Your task to perform on an android device: open app "Etsy: Buy & Sell Unique Items" (install if not already installed) and go to login screen Image 0: 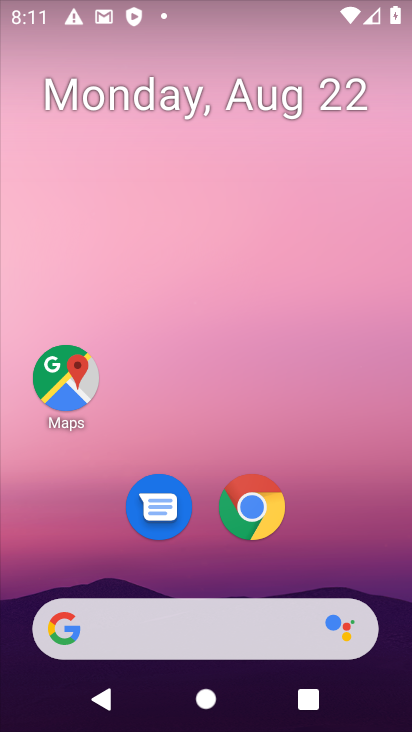
Step 0: drag from (215, 538) to (279, 121)
Your task to perform on an android device: open app "Etsy: Buy & Sell Unique Items" (install if not already installed) and go to login screen Image 1: 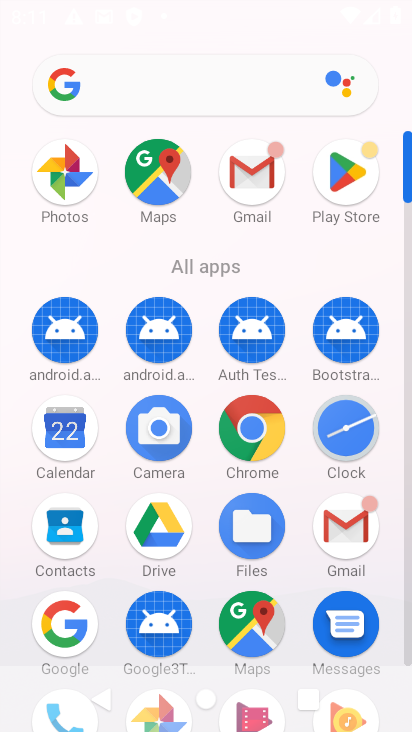
Step 1: click (352, 200)
Your task to perform on an android device: open app "Etsy: Buy & Sell Unique Items" (install if not already installed) and go to login screen Image 2: 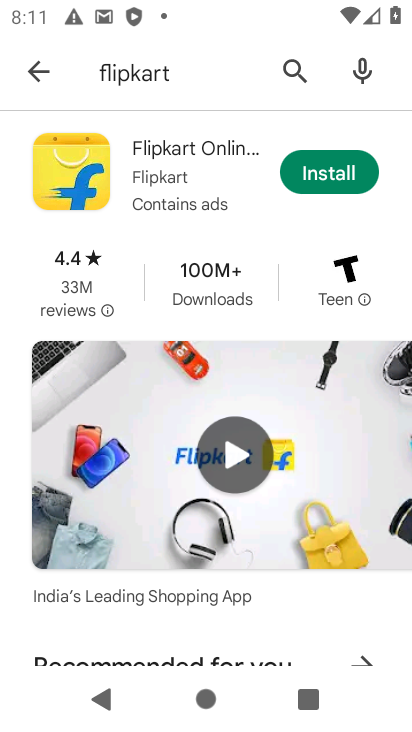
Step 2: click (177, 77)
Your task to perform on an android device: open app "Etsy: Buy & Sell Unique Items" (install if not already installed) and go to login screen Image 3: 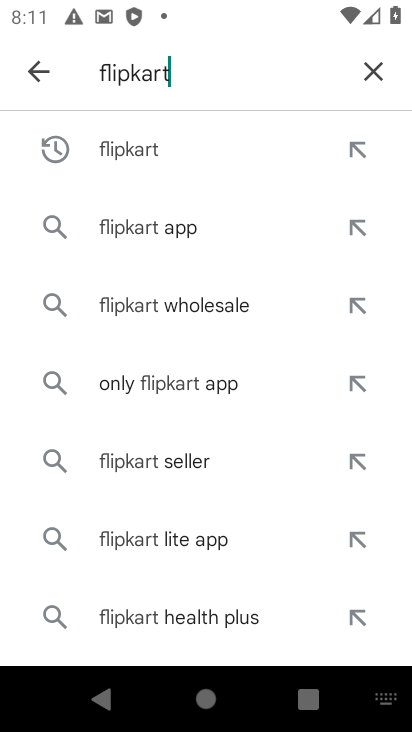
Step 3: click (357, 75)
Your task to perform on an android device: open app "Etsy: Buy & Sell Unique Items" (install if not already installed) and go to login screen Image 4: 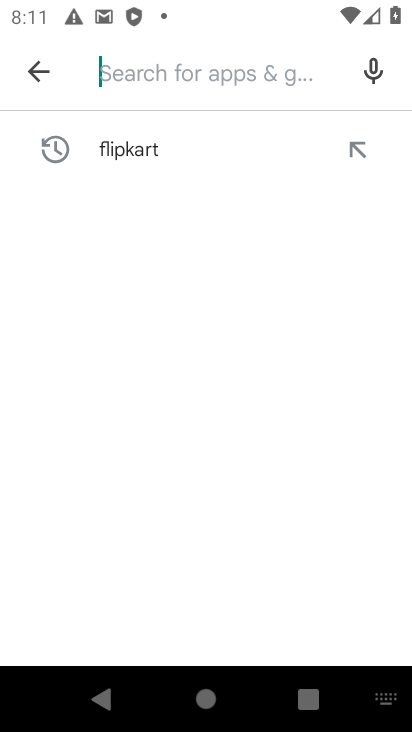
Step 4: type "Etsy"
Your task to perform on an android device: open app "Etsy: Buy & Sell Unique Items" (install if not already installed) and go to login screen Image 5: 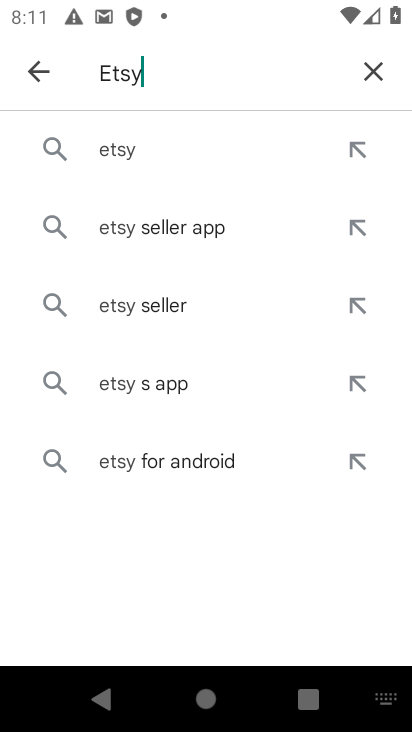
Step 5: click (124, 157)
Your task to perform on an android device: open app "Etsy: Buy & Sell Unique Items" (install if not already installed) and go to login screen Image 6: 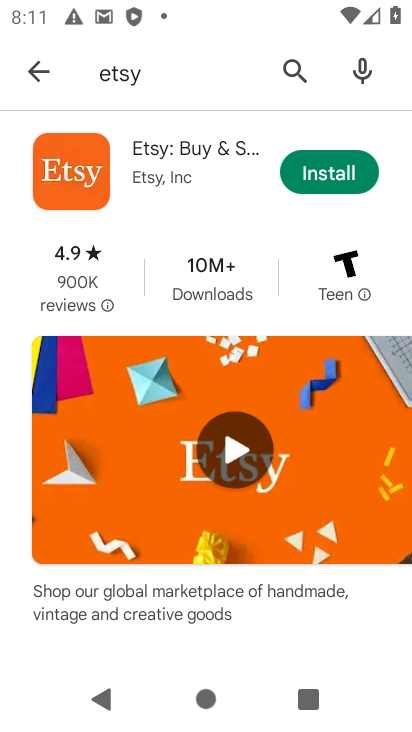
Step 6: click (327, 167)
Your task to perform on an android device: open app "Etsy: Buy & Sell Unique Items" (install if not already installed) and go to login screen Image 7: 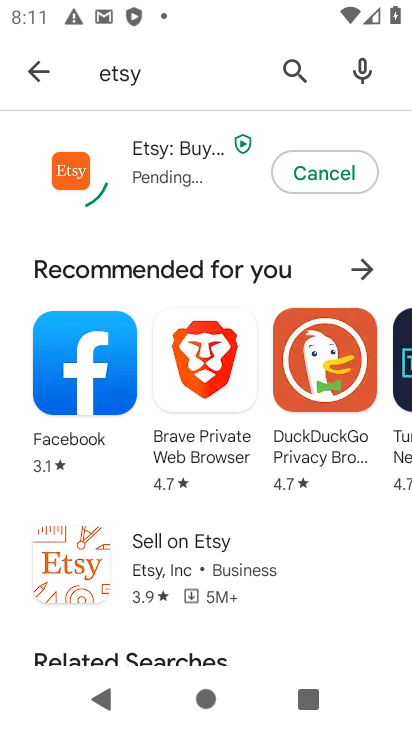
Step 7: click (42, 76)
Your task to perform on an android device: open app "Etsy: Buy & Sell Unique Items" (install if not already installed) and go to login screen Image 8: 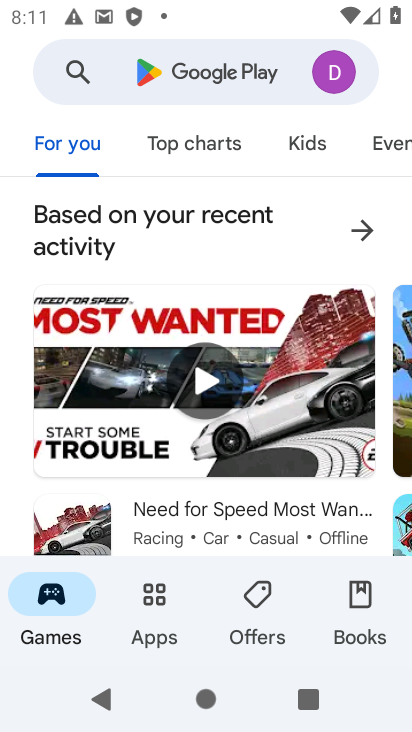
Step 8: click (335, 71)
Your task to perform on an android device: open app "Etsy: Buy & Sell Unique Items" (install if not already installed) and go to login screen Image 9: 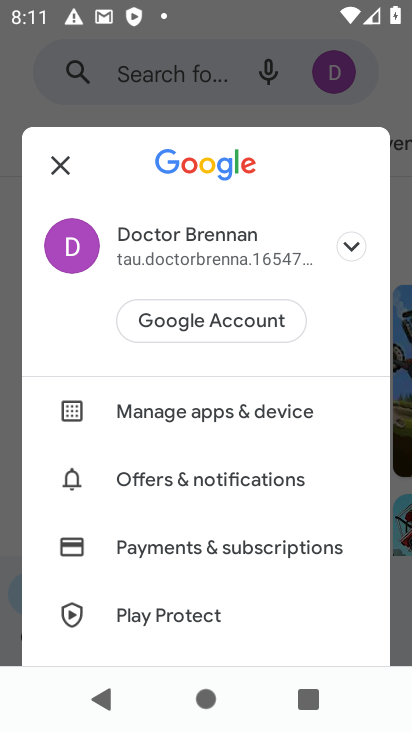
Step 9: click (191, 414)
Your task to perform on an android device: open app "Etsy: Buy & Sell Unique Items" (install if not already installed) and go to login screen Image 10: 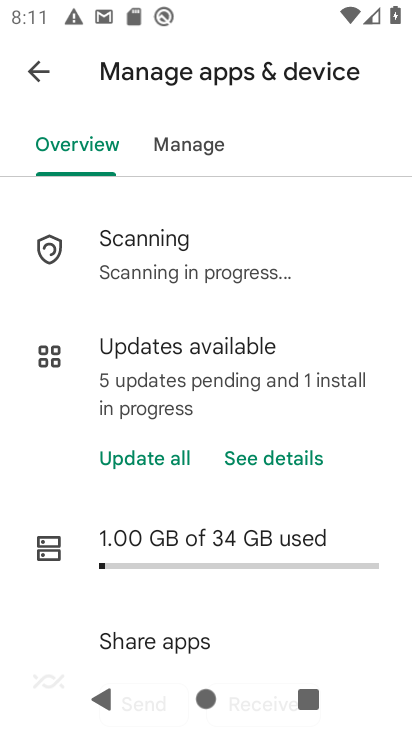
Step 10: click (185, 554)
Your task to perform on an android device: open app "Etsy: Buy & Sell Unique Items" (install if not already installed) and go to login screen Image 11: 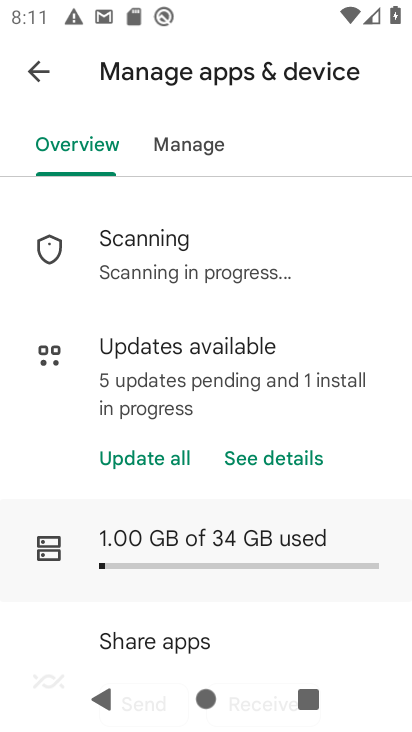
Step 11: click (165, 376)
Your task to perform on an android device: open app "Etsy: Buy & Sell Unique Items" (install if not already installed) and go to login screen Image 12: 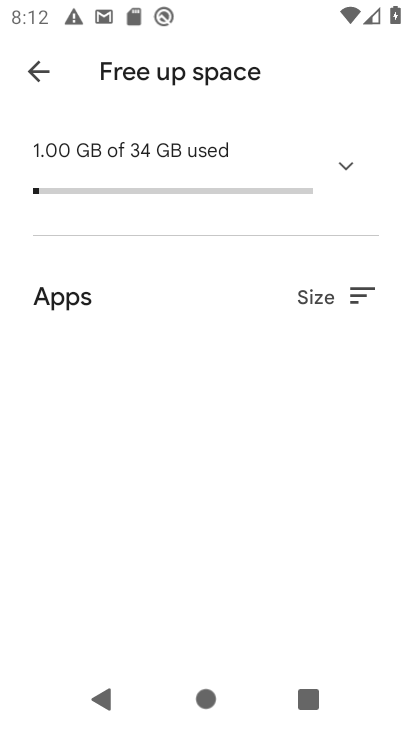
Step 12: click (32, 71)
Your task to perform on an android device: open app "Etsy: Buy & Sell Unique Items" (install if not already installed) and go to login screen Image 13: 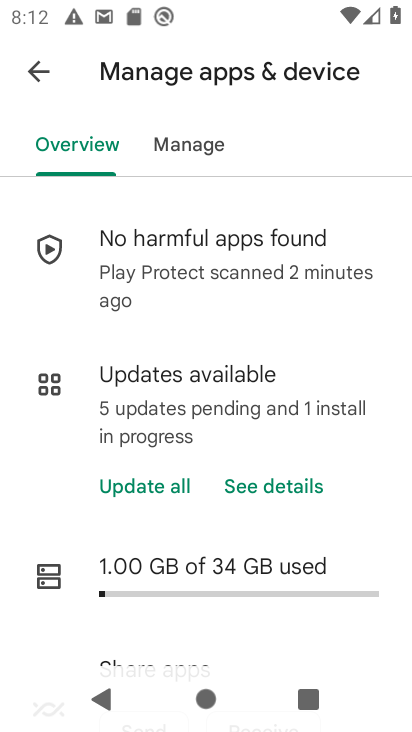
Step 13: click (201, 400)
Your task to perform on an android device: open app "Etsy: Buy & Sell Unique Items" (install if not already installed) and go to login screen Image 14: 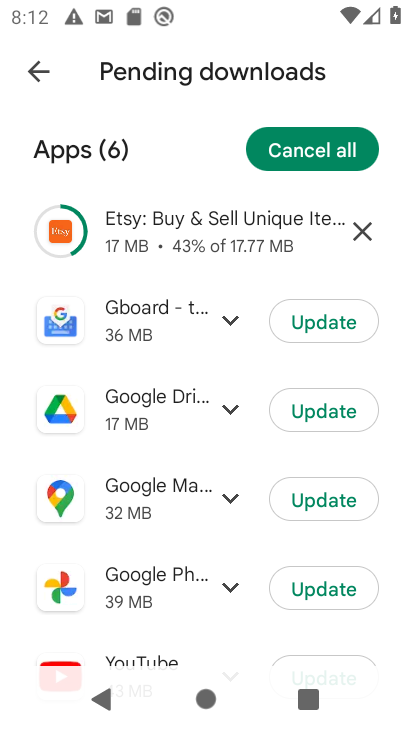
Step 14: click (206, 218)
Your task to perform on an android device: open app "Etsy: Buy & Sell Unique Items" (install if not already installed) and go to login screen Image 15: 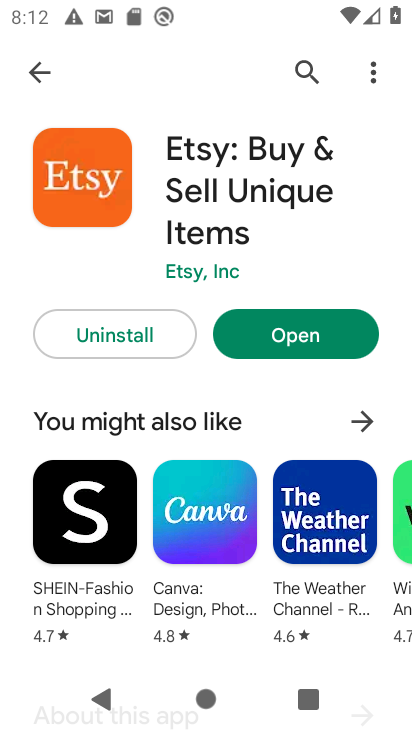
Step 15: click (325, 337)
Your task to perform on an android device: open app "Etsy: Buy & Sell Unique Items" (install if not already installed) and go to login screen Image 16: 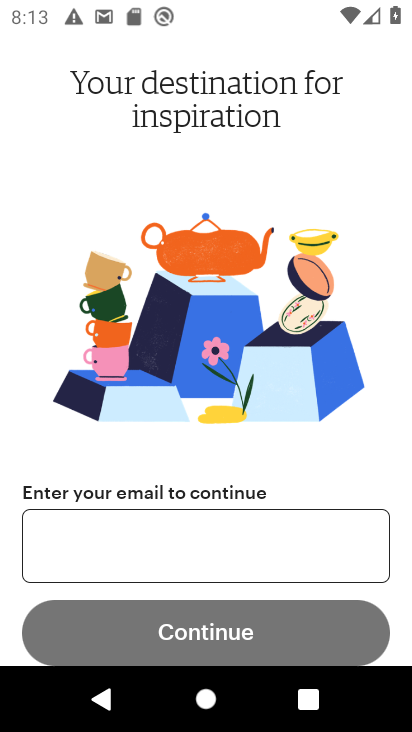
Step 16: task complete